Your task to perform on an android device: Go to battery settings Image 0: 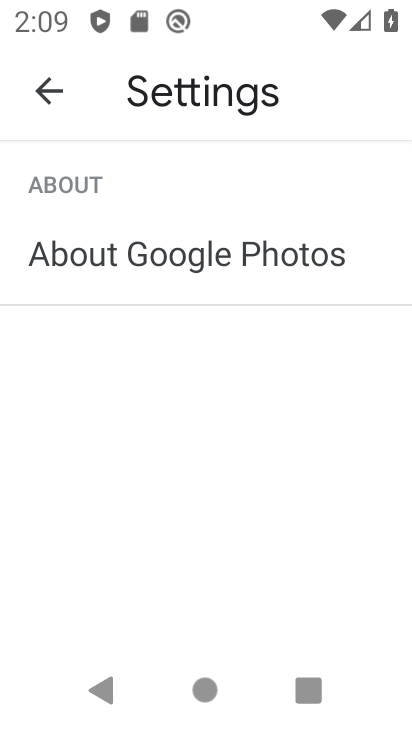
Step 0: press home button
Your task to perform on an android device: Go to battery settings Image 1: 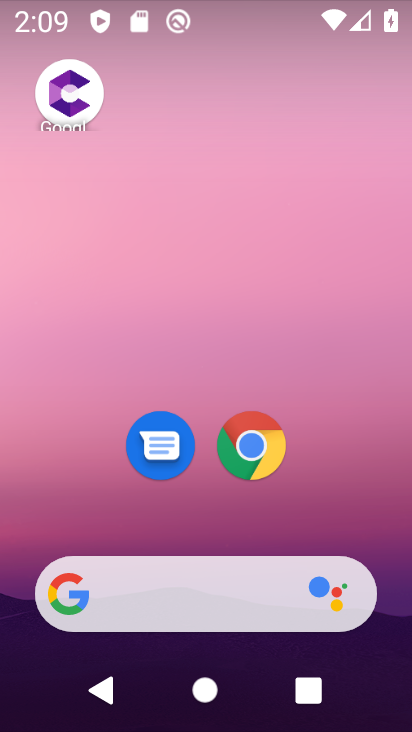
Step 1: drag from (388, 707) to (305, 181)
Your task to perform on an android device: Go to battery settings Image 2: 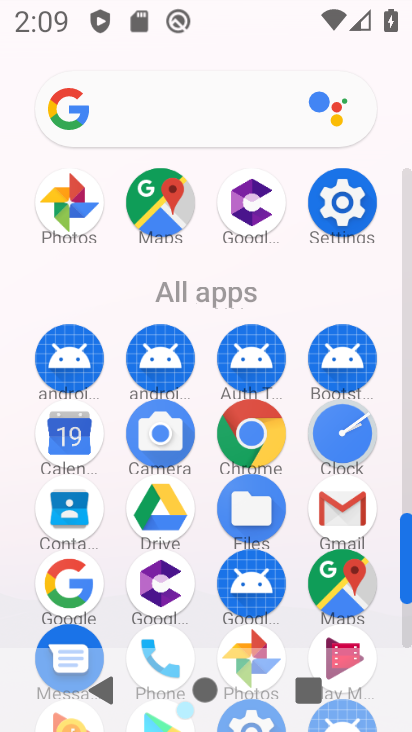
Step 2: click (351, 202)
Your task to perform on an android device: Go to battery settings Image 3: 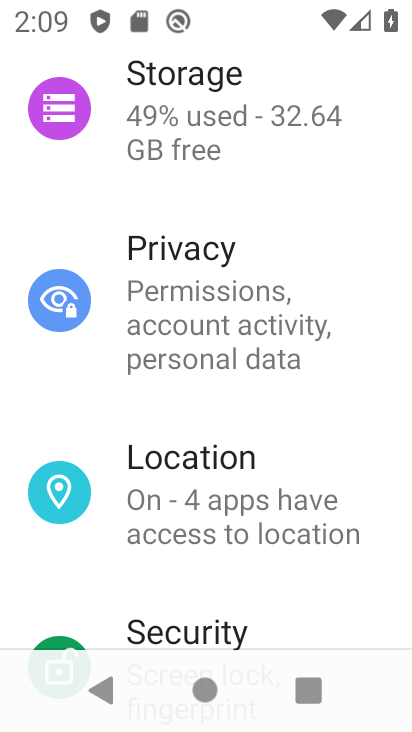
Step 3: drag from (356, 84) to (392, 594)
Your task to perform on an android device: Go to battery settings Image 4: 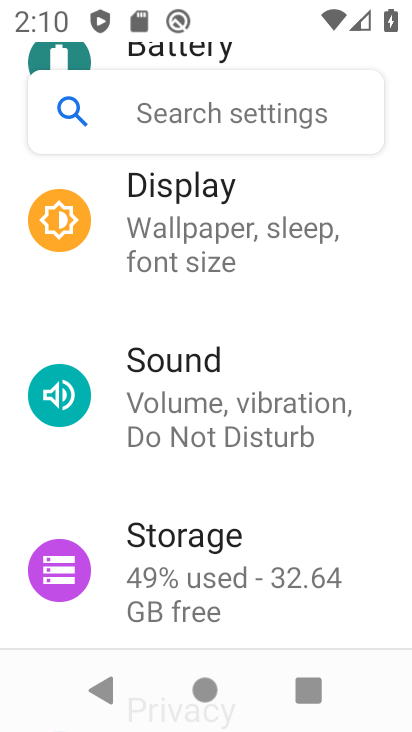
Step 4: click (176, 223)
Your task to perform on an android device: Go to battery settings Image 5: 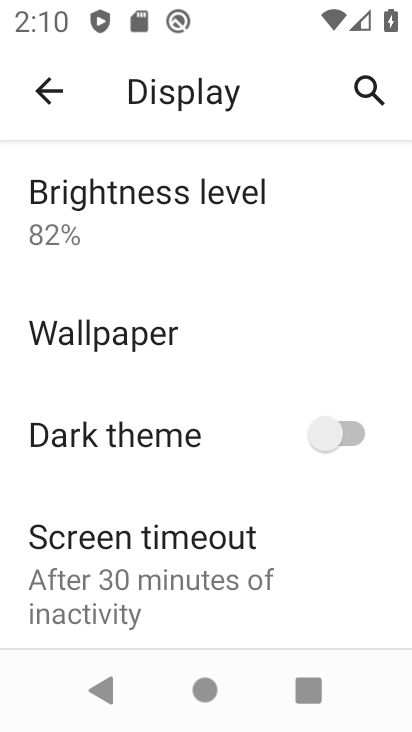
Step 5: drag from (210, 571) to (206, 294)
Your task to perform on an android device: Go to battery settings Image 6: 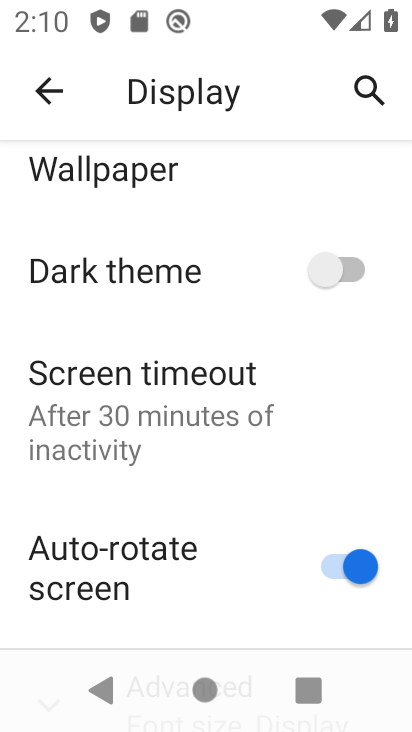
Step 6: drag from (206, 622) to (185, 378)
Your task to perform on an android device: Go to battery settings Image 7: 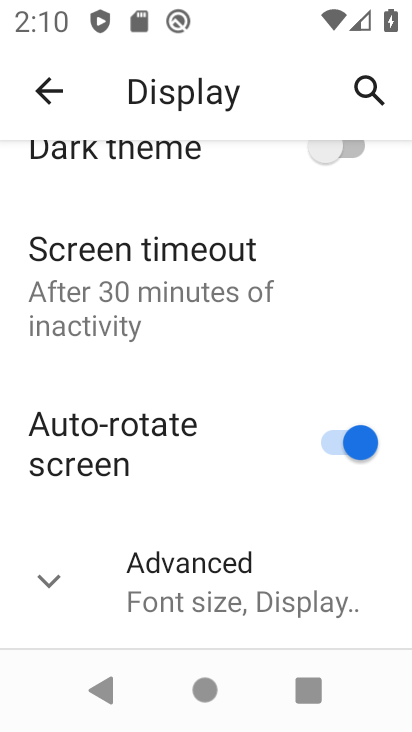
Step 7: click (59, 573)
Your task to perform on an android device: Go to battery settings Image 8: 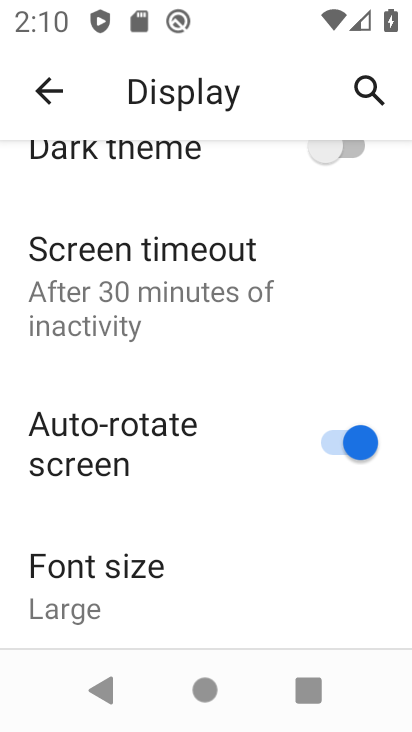
Step 8: drag from (226, 622) to (191, 365)
Your task to perform on an android device: Go to battery settings Image 9: 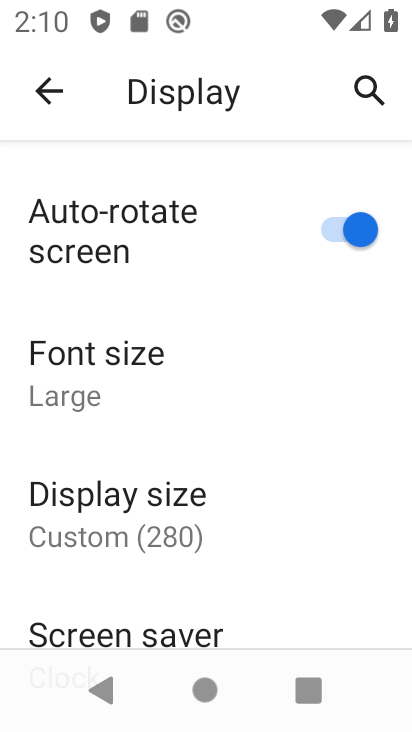
Step 9: click (55, 375)
Your task to perform on an android device: Go to battery settings Image 10: 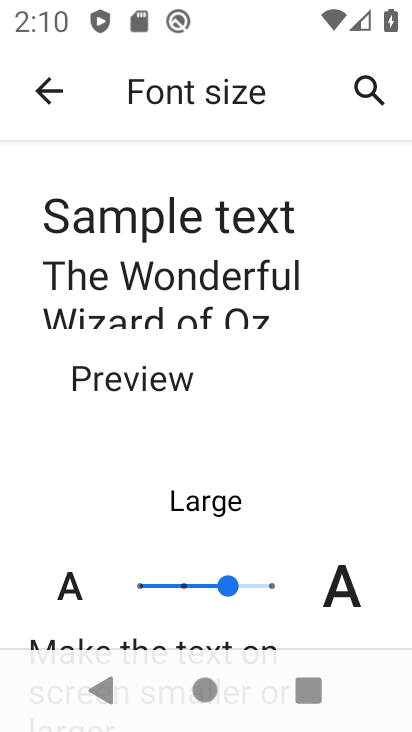
Step 10: click (173, 586)
Your task to perform on an android device: Go to battery settings Image 11: 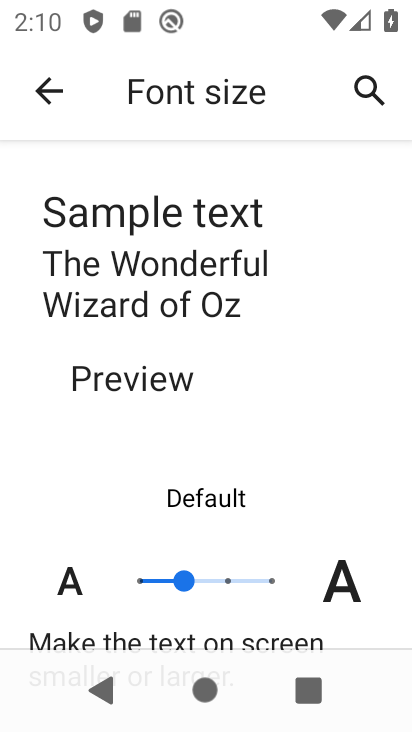
Step 11: click (158, 577)
Your task to perform on an android device: Go to battery settings Image 12: 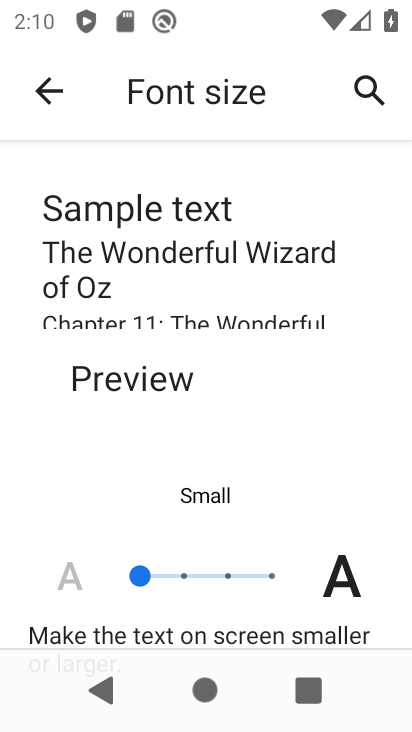
Step 12: click (47, 98)
Your task to perform on an android device: Go to battery settings Image 13: 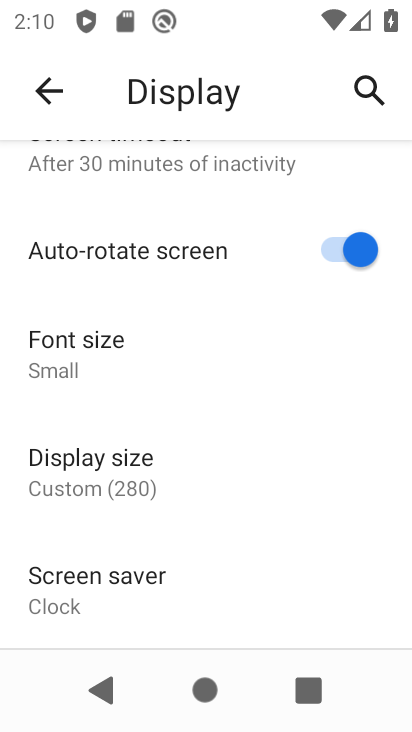
Step 13: drag from (220, 579) to (188, 325)
Your task to perform on an android device: Go to battery settings Image 14: 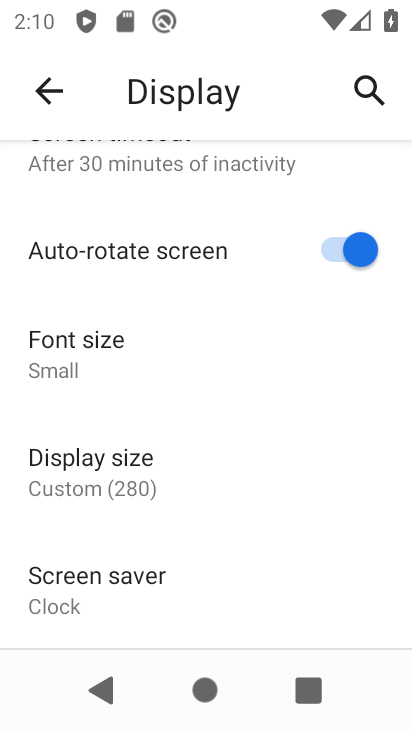
Step 14: drag from (211, 620) to (239, 304)
Your task to perform on an android device: Go to battery settings Image 15: 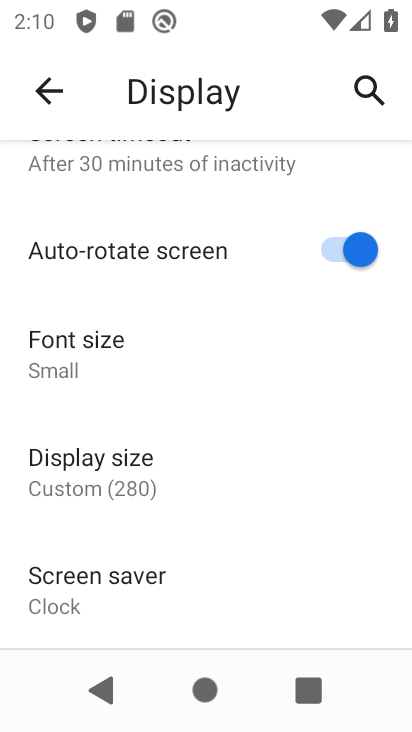
Step 15: click (46, 89)
Your task to perform on an android device: Go to battery settings Image 16: 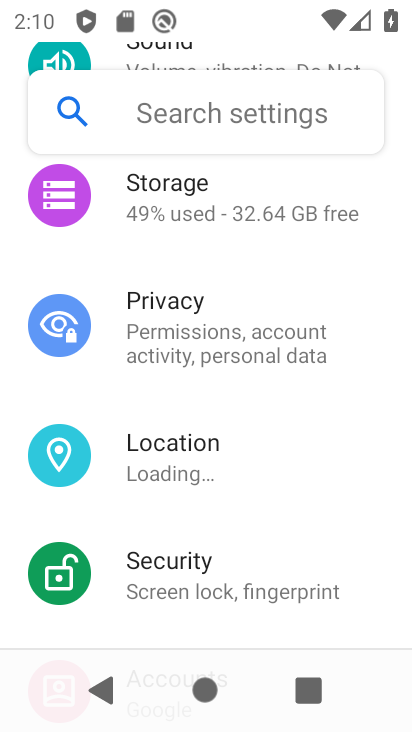
Step 16: drag from (245, 219) to (269, 525)
Your task to perform on an android device: Go to battery settings Image 17: 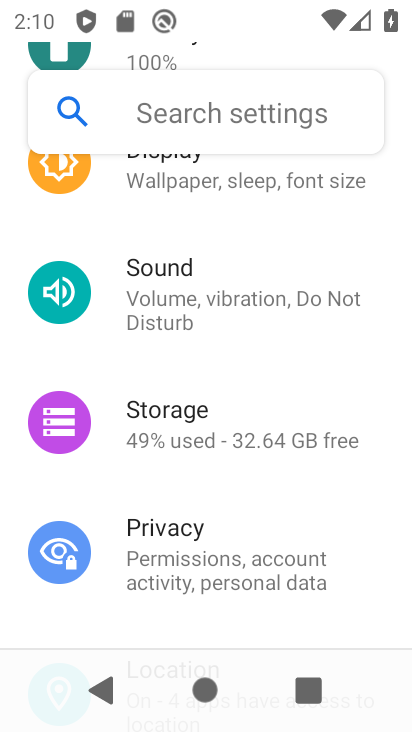
Step 17: drag from (238, 248) to (246, 673)
Your task to perform on an android device: Go to battery settings Image 18: 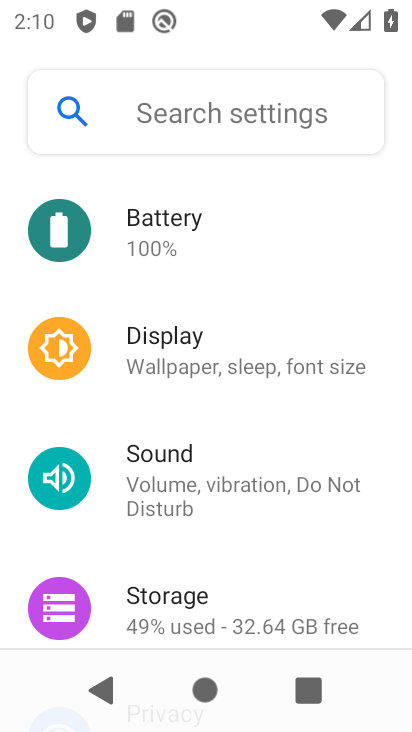
Step 18: click (158, 241)
Your task to perform on an android device: Go to battery settings Image 19: 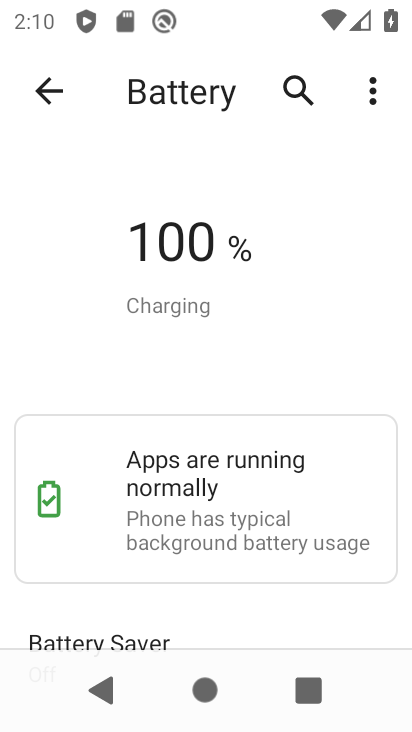
Step 19: task complete